Your task to perform on an android device: check google app version Image 0: 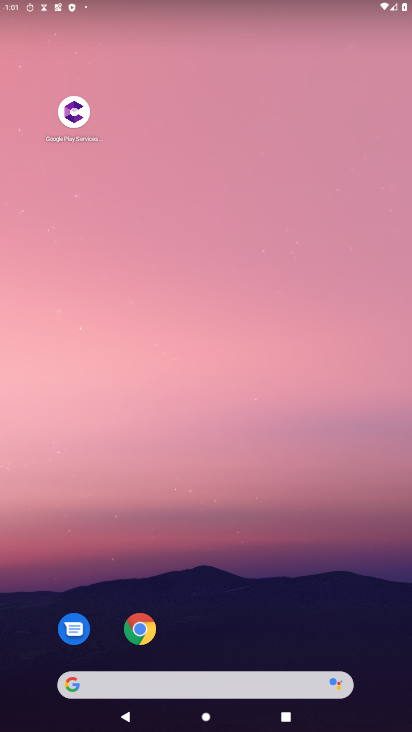
Step 0: drag from (191, 669) to (175, 56)
Your task to perform on an android device: check google app version Image 1: 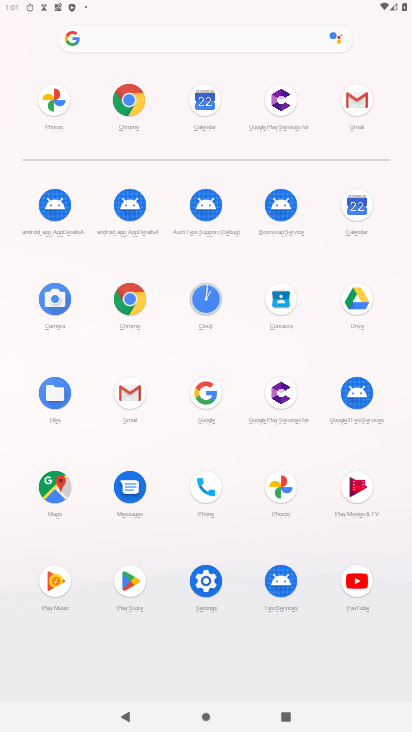
Step 1: click (132, 307)
Your task to perform on an android device: check google app version Image 2: 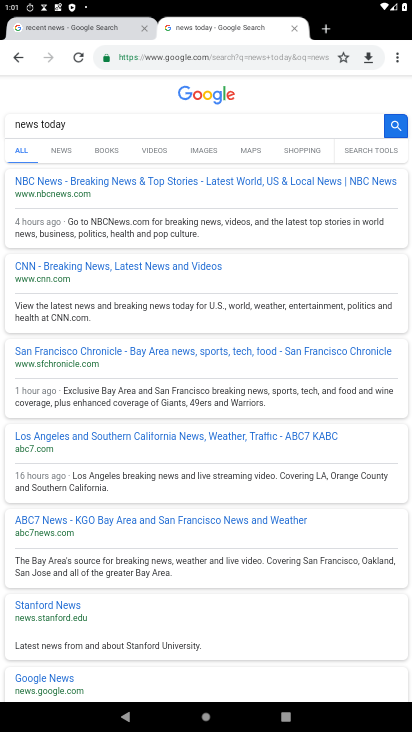
Step 2: drag from (395, 57) to (326, 382)
Your task to perform on an android device: check google app version Image 3: 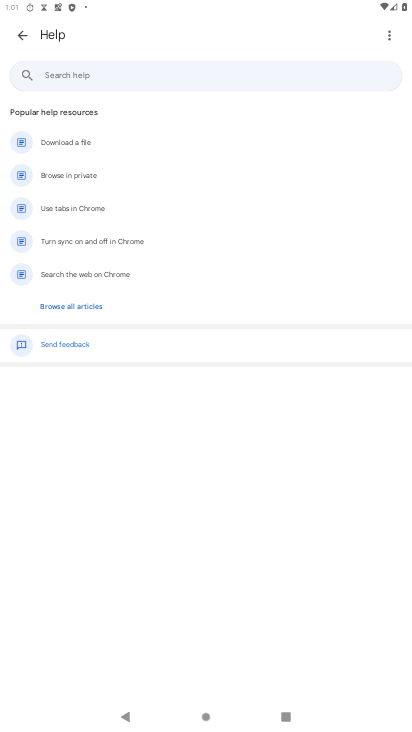
Step 3: click (392, 34)
Your task to perform on an android device: check google app version Image 4: 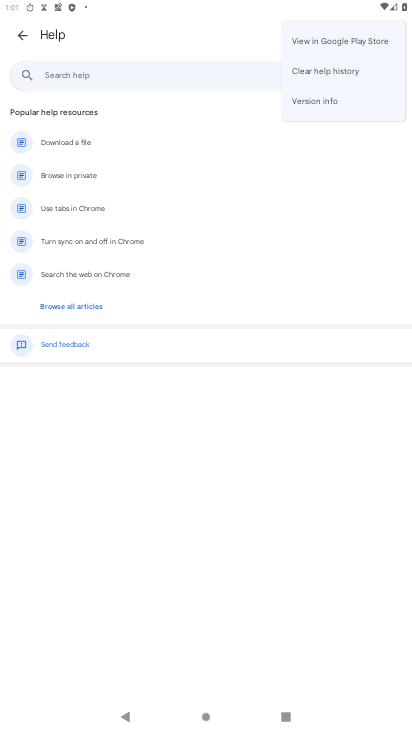
Step 4: click (317, 89)
Your task to perform on an android device: check google app version Image 5: 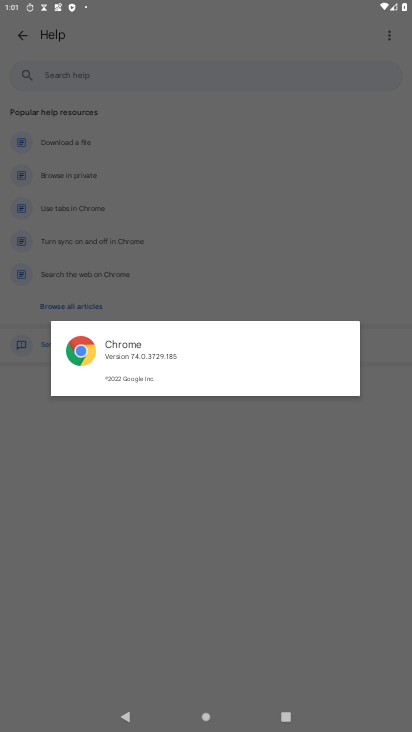
Step 5: task complete